Your task to perform on an android device: turn off priority inbox in the gmail app Image 0: 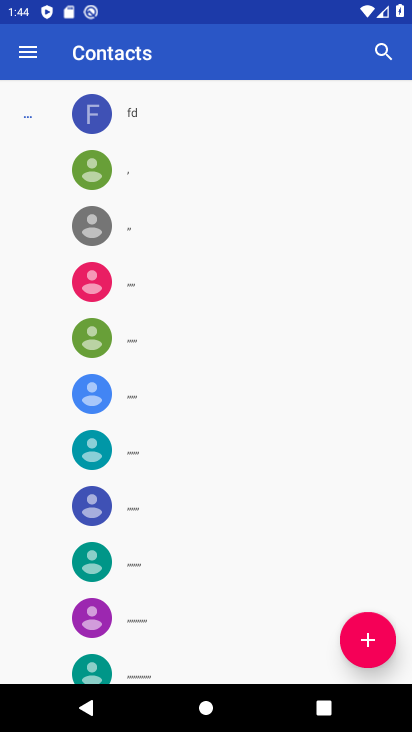
Step 0: press home button
Your task to perform on an android device: turn off priority inbox in the gmail app Image 1: 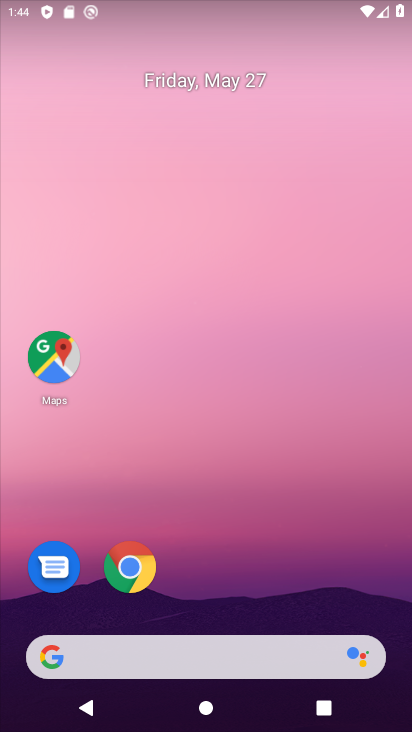
Step 1: drag from (238, 615) to (195, 157)
Your task to perform on an android device: turn off priority inbox in the gmail app Image 2: 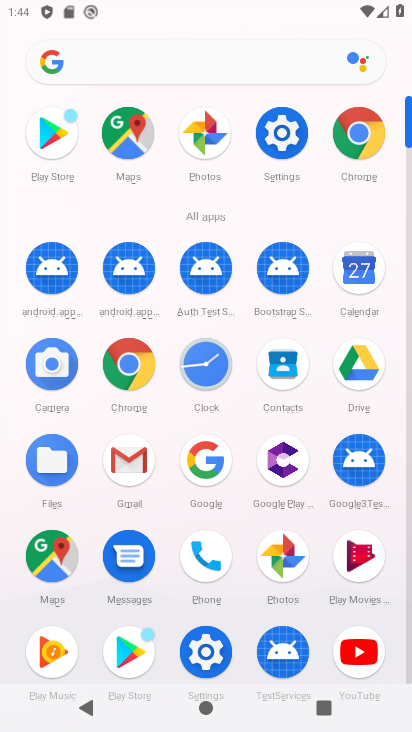
Step 2: click (137, 474)
Your task to perform on an android device: turn off priority inbox in the gmail app Image 3: 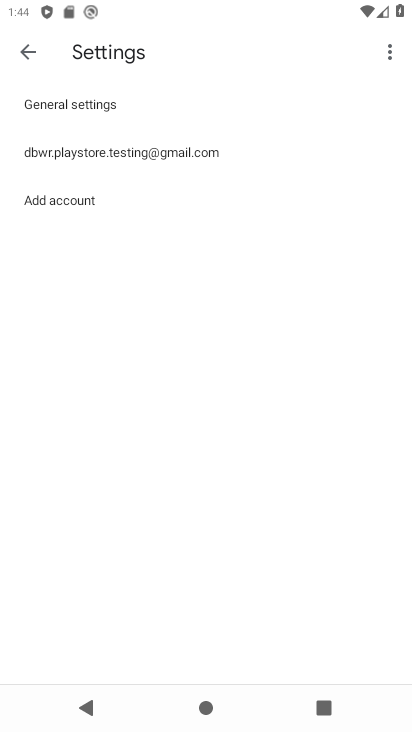
Step 3: click (192, 155)
Your task to perform on an android device: turn off priority inbox in the gmail app Image 4: 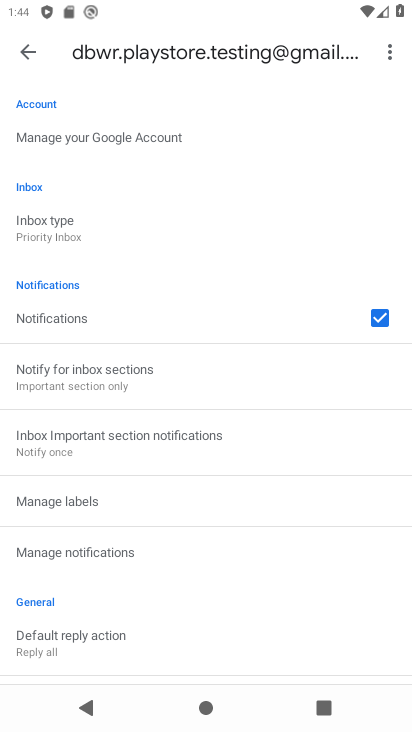
Step 4: click (186, 232)
Your task to perform on an android device: turn off priority inbox in the gmail app Image 5: 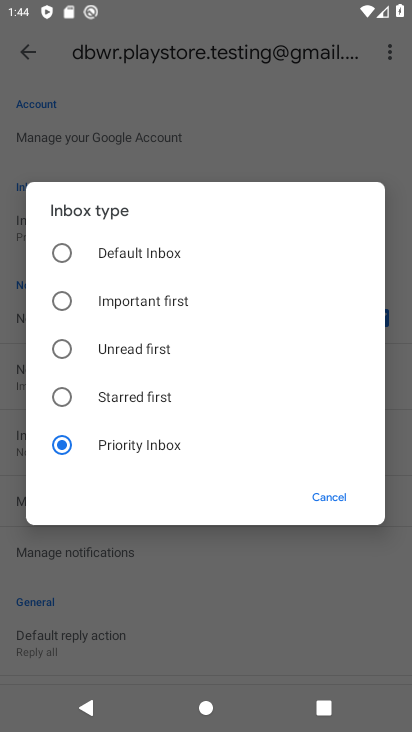
Step 5: click (161, 261)
Your task to perform on an android device: turn off priority inbox in the gmail app Image 6: 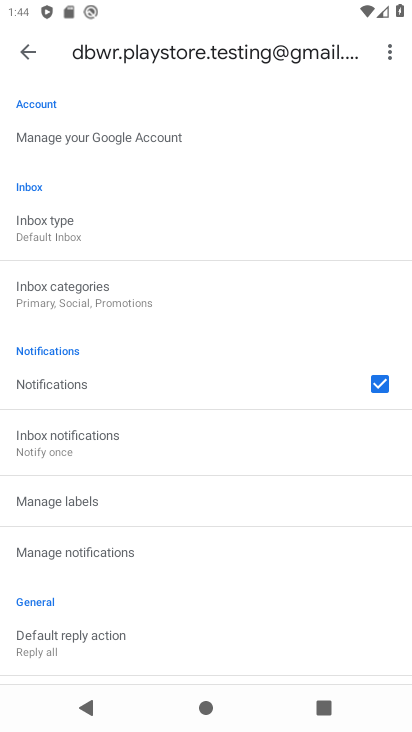
Step 6: task complete